Your task to perform on an android device: turn off smart reply in the gmail app Image 0: 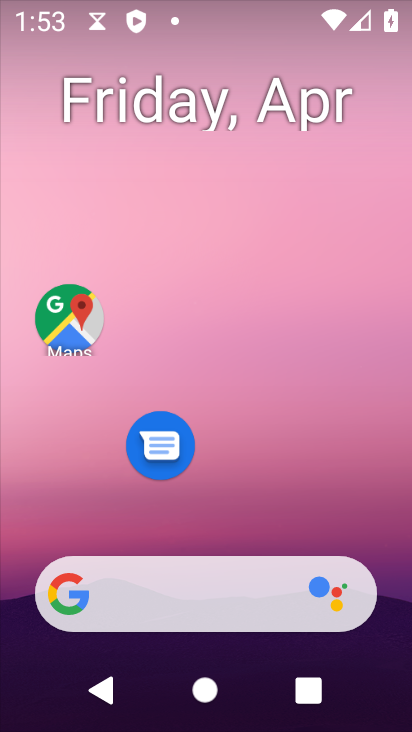
Step 0: drag from (276, 515) to (301, 144)
Your task to perform on an android device: turn off smart reply in the gmail app Image 1: 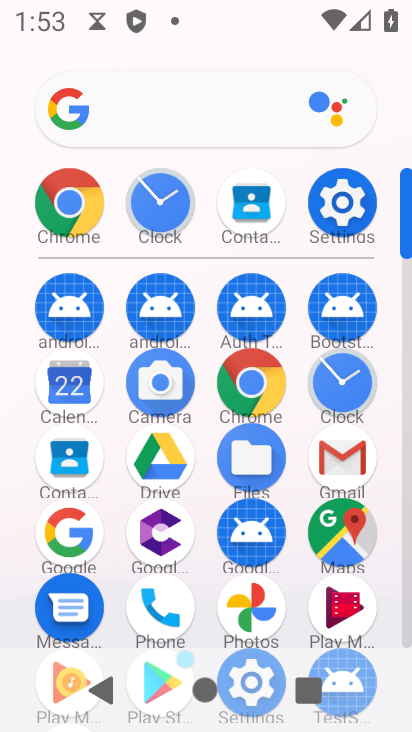
Step 1: click (340, 463)
Your task to perform on an android device: turn off smart reply in the gmail app Image 2: 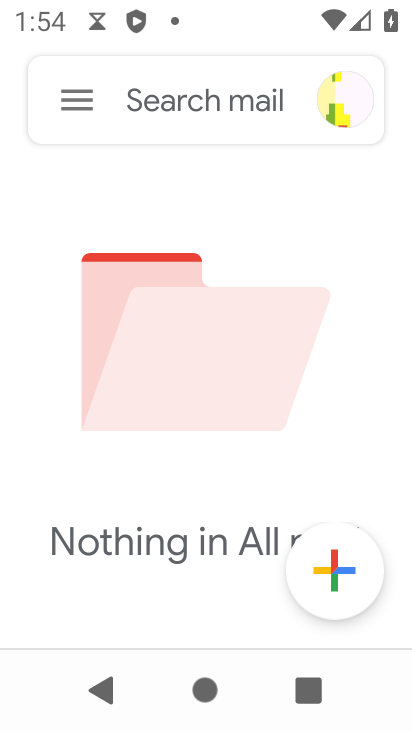
Step 2: click (62, 92)
Your task to perform on an android device: turn off smart reply in the gmail app Image 3: 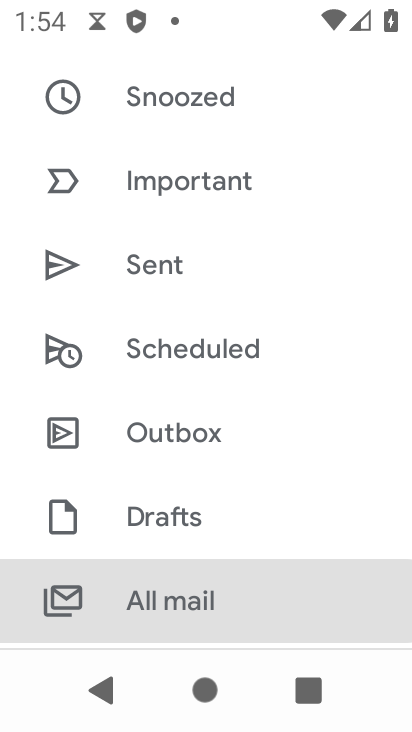
Step 3: drag from (207, 508) to (287, 280)
Your task to perform on an android device: turn off smart reply in the gmail app Image 4: 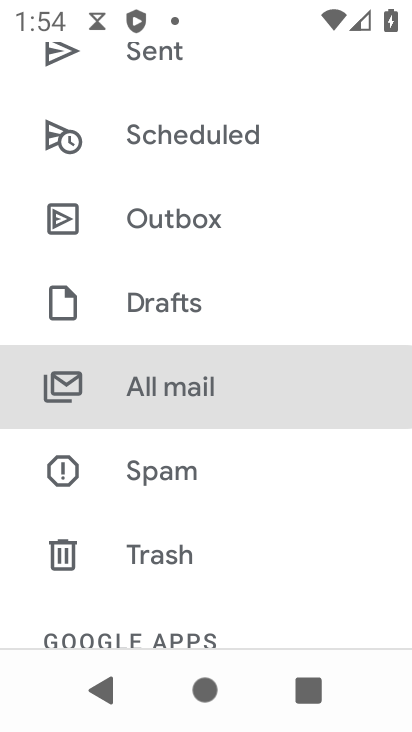
Step 4: drag from (196, 526) to (272, 247)
Your task to perform on an android device: turn off smart reply in the gmail app Image 5: 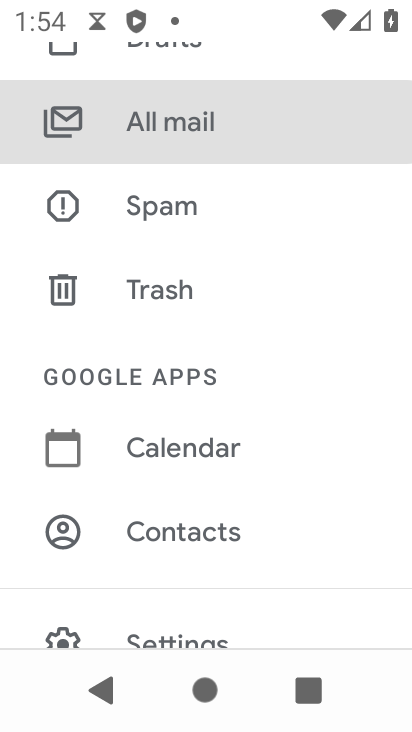
Step 5: click (191, 619)
Your task to perform on an android device: turn off smart reply in the gmail app Image 6: 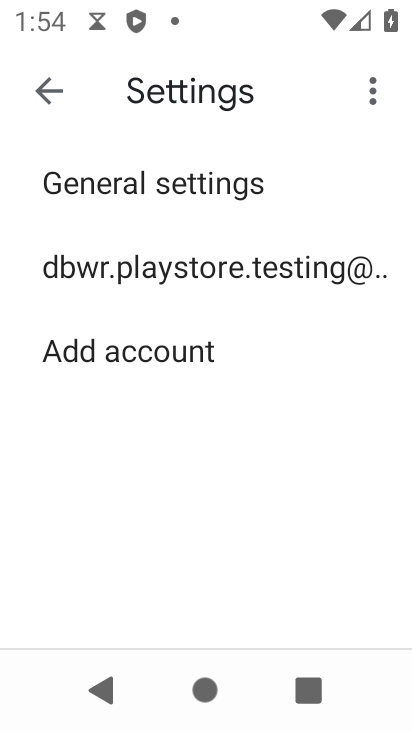
Step 6: click (264, 278)
Your task to perform on an android device: turn off smart reply in the gmail app Image 7: 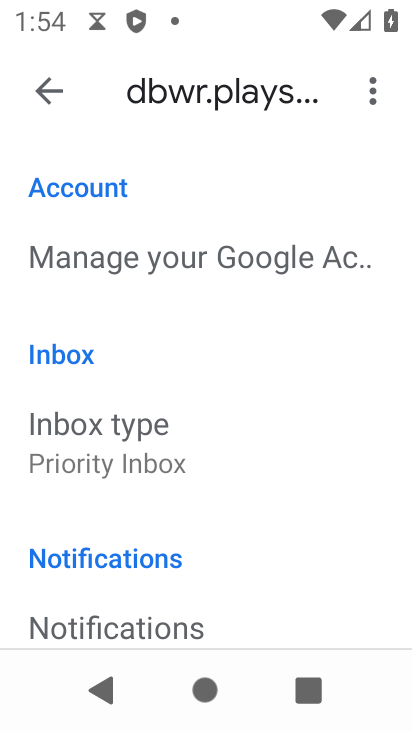
Step 7: drag from (205, 589) to (245, 311)
Your task to perform on an android device: turn off smart reply in the gmail app Image 8: 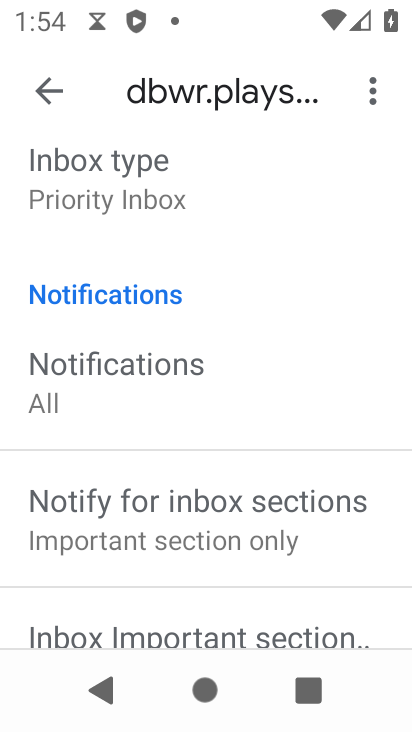
Step 8: drag from (192, 509) to (232, 345)
Your task to perform on an android device: turn off smart reply in the gmail app Image 9: 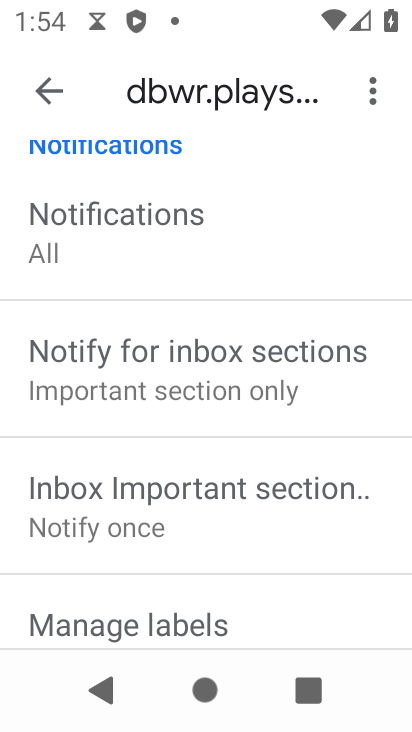
Step 9: drag from (207, 493) to (253, 289)
Your task to perform on an android device: turn off smart reply in the gmail app Image 10: 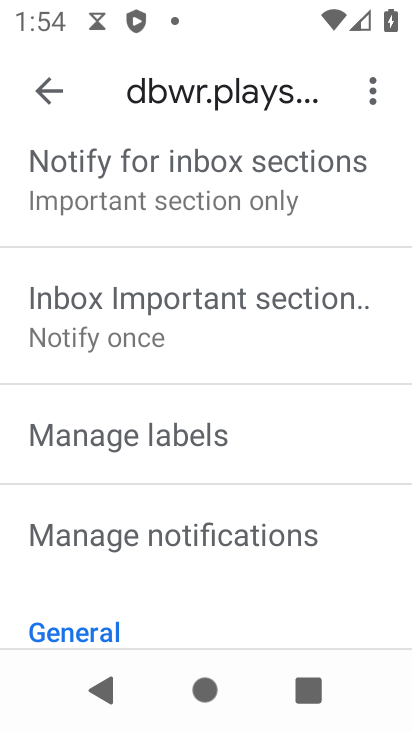
Step 10: drag from (195, 518) to (261, 296)
Your task to perform on an android device: turn off smart reply in the gmail app Image 11: 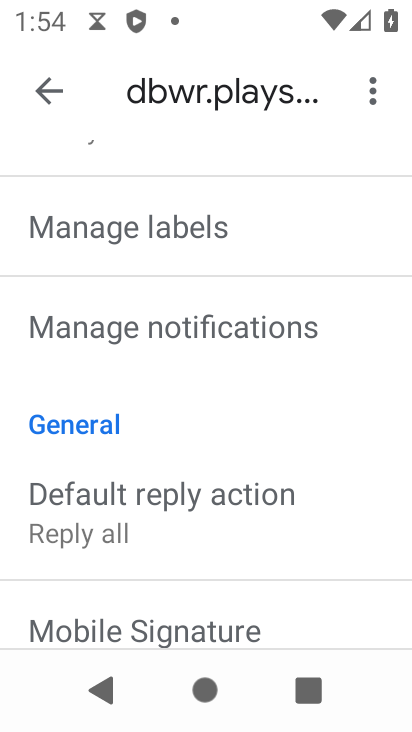
Step 11: drag from (186, 522) to (206, 365)
Your task to perform on an android device: turn off smart reply in the gmail app Image 12: 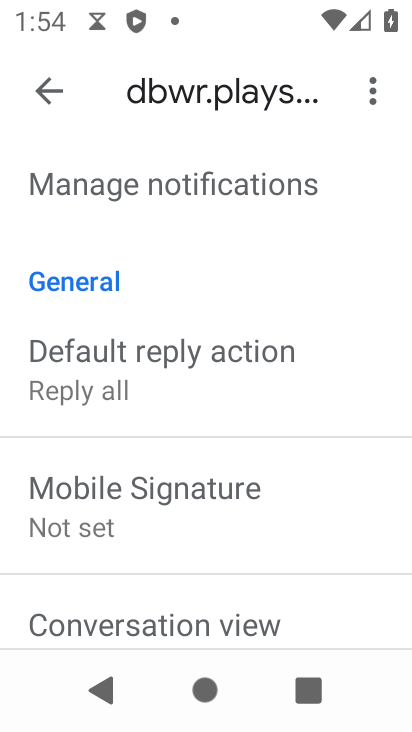
Step 12: drag from (201, 524) to (230, 425)
Your task to perform on an android device: turn off smart reply in the gmail app Image 13: 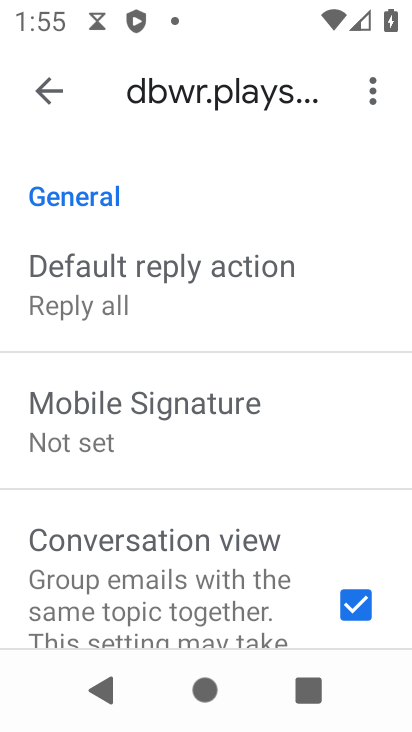
Step 13: drag from (193, 512) to (209, 385)
Your task to perform on an android device: turn off smart reply in the gmail app Image 14: 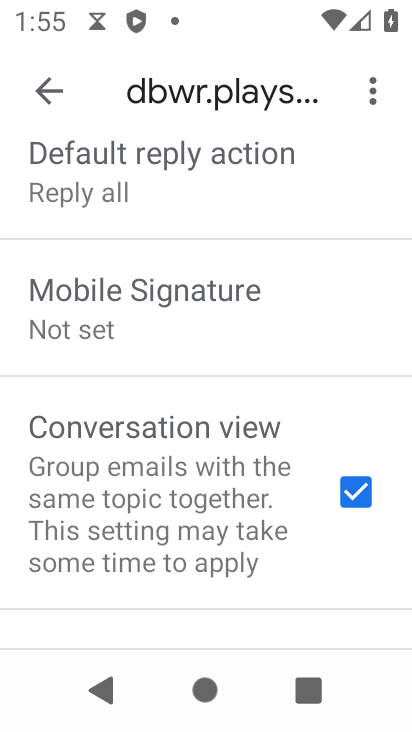
Step 14: drag from (201, 483) to (221, 362)
Your task to perform on an android device: turn off smart reply in the gmail app Image 15: 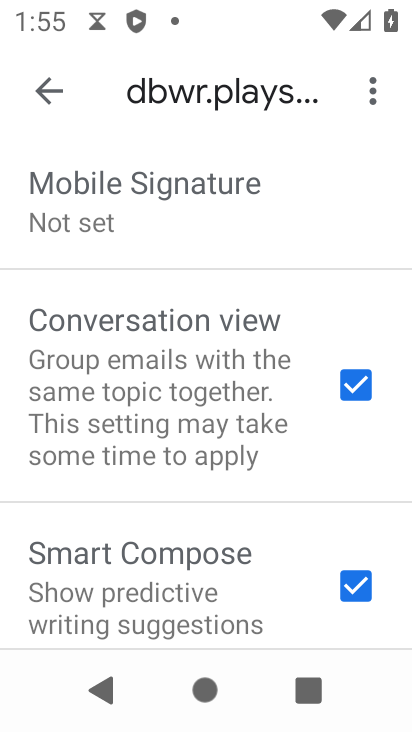
Step 15: drag from (174, 519) to (205, 336)
Your task to perform on an android device: turn off smart reply in the gmail app Image 16: 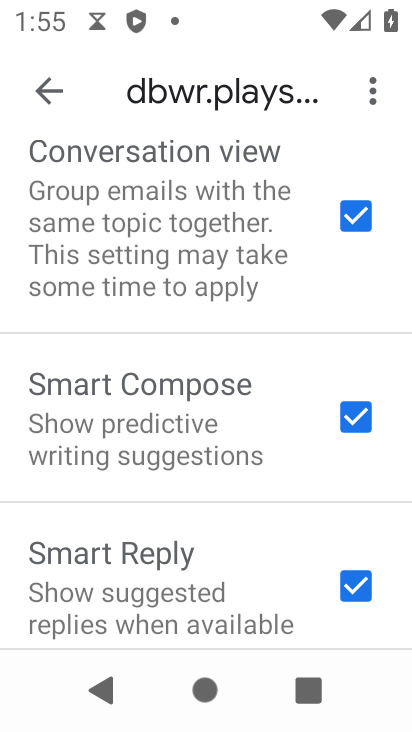
Step 16: drag from (219, 535) to (230, 377)
Your task to perform on an android device: turn off smart reply in the gmail app Image 17: 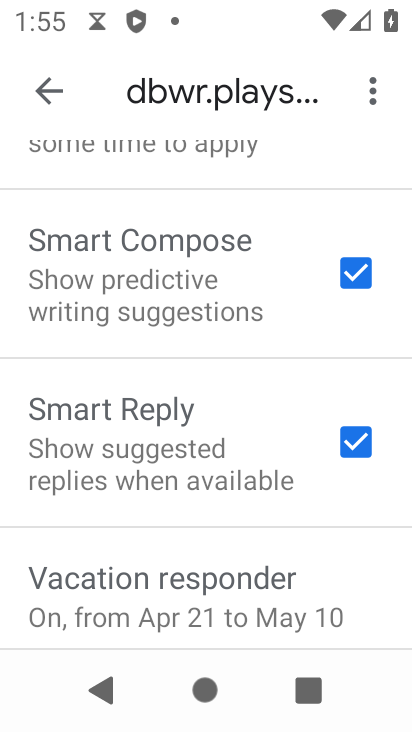
Step 17: click (350, 443)
Your task to perform on an android device: turn off smart reply in the gmail app Image 18: 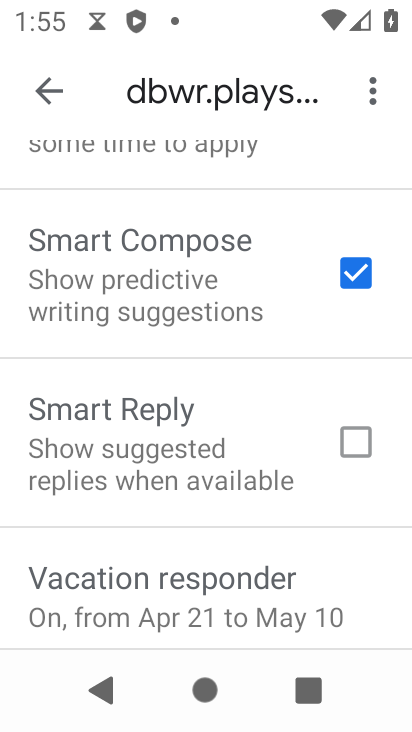
Step 18: task complete